Your task to perform on an android device: Open Google Maps and go to "Timeline" Image 0: 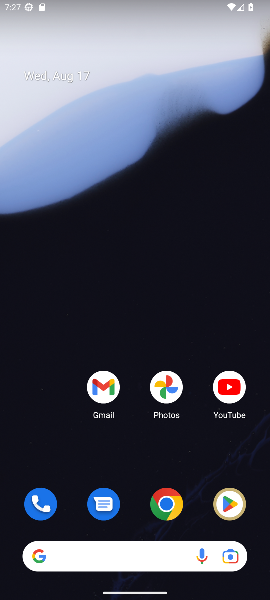
Step 0: drag from (142, 442) to (163, 105)
Your task to perform on an android device: Open Google Maps and go to "Timeline" Image 1: 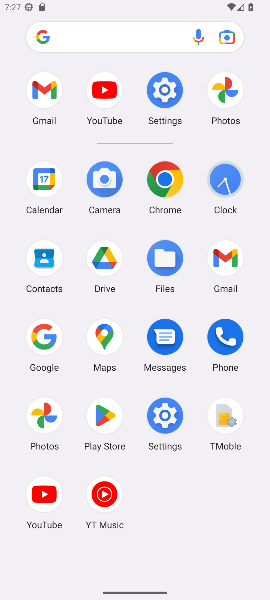
Step 1: click (112, 342)
Your task to perform on an android device: Open Google Maps and go to "Timeline" Image 2: 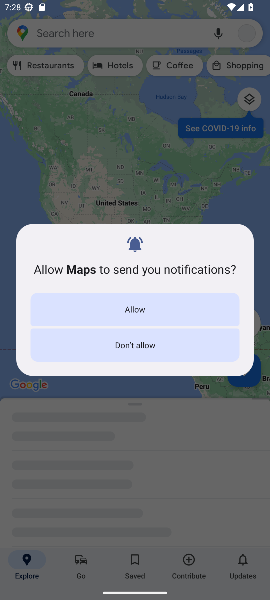
Step 2: click (167, 317)
Your task to perform on an android device: Open Google Maps and go to "Timeline" Image 3: 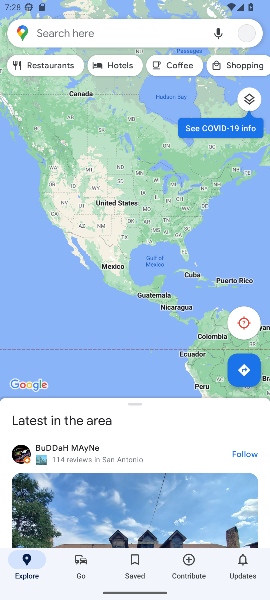
Step 3: click (232, 31)
Your task to perform on an android device: Open Google Maps and go to "Timeline" Image 4: 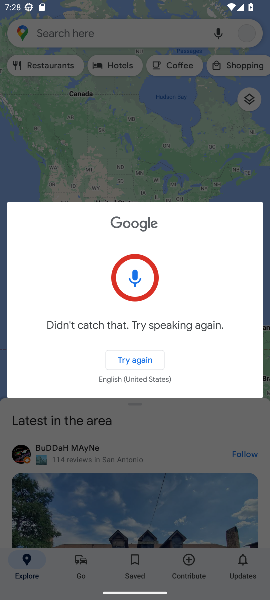
Step 4: task complete